Your task to perform on an android device: What's the weather? Image 0: 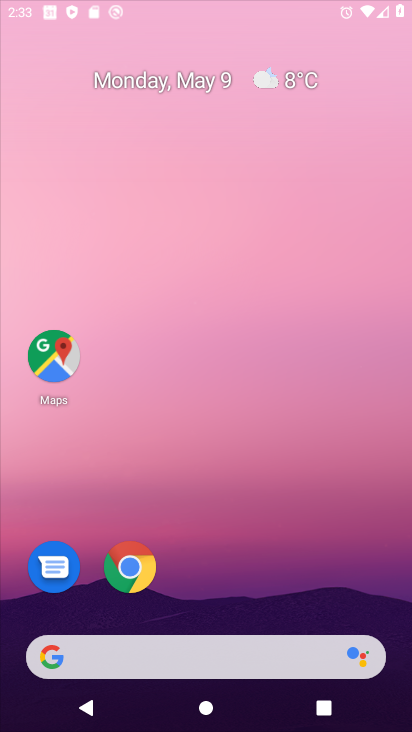
Step 0: click (235, 412)
Your task to perform on an android device: What's the weather? Image 1: 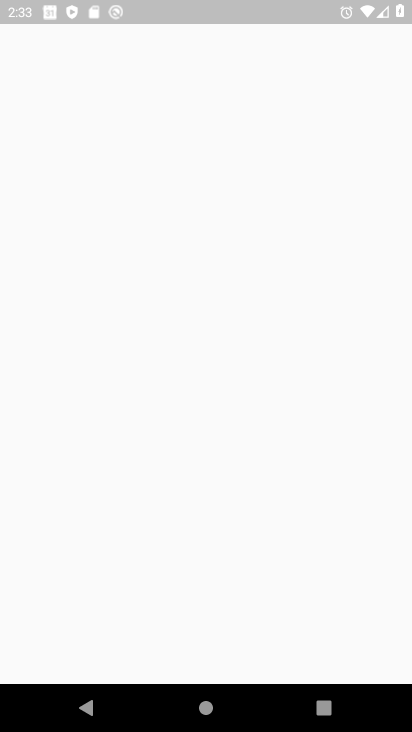
Step 1: drag from (194, 598) to (207, 489)
Your task to perform on an android device: What's the weather? Image 2: 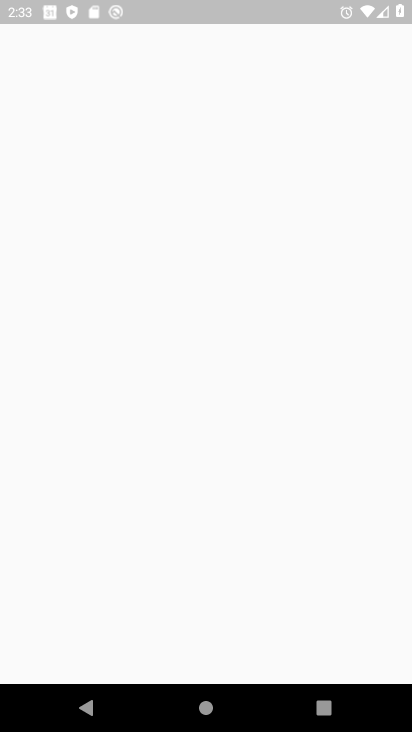
Step 2: drag from (234, 383) to (232, 439)
Your task to perform on an android device: What's the weather? Image 3: 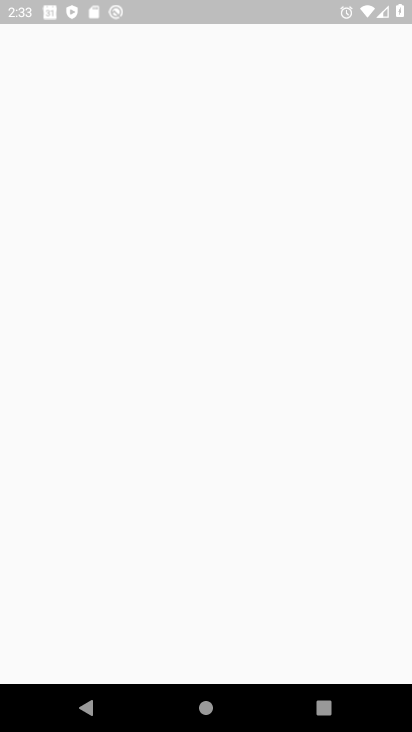
Step 3: press home button
Your task to perform on an android device: What's the weather? Image 4: 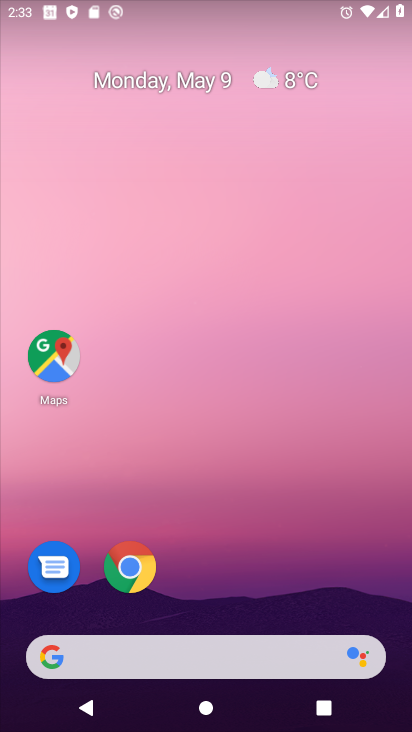
Step 4: drag from (167, 532) to (226, 194)
Your task to perform on an android device: What's the weather? Image 5: 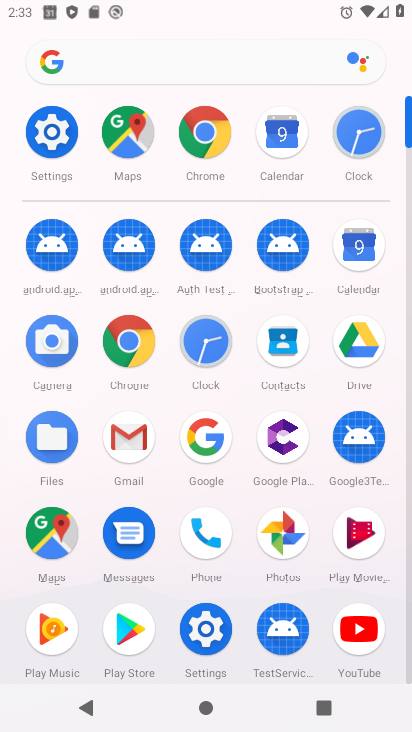
Step 5: click (210, 123)
Your task to perform on an android device: What's the weather? Image 6: 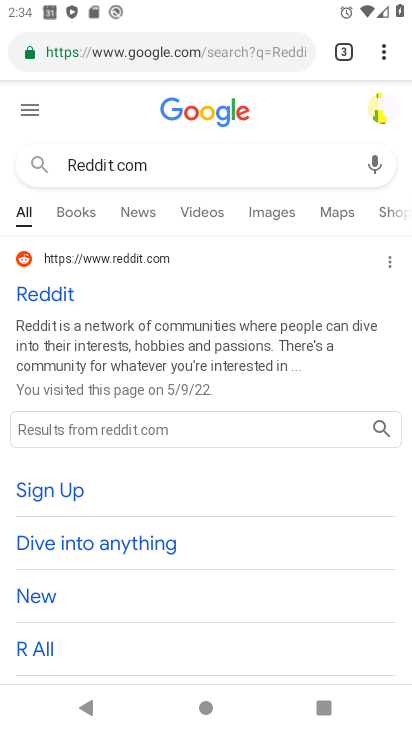
Step 6: click (235, 153)
Your task to perform on an android device: What's the weather? Image 7: 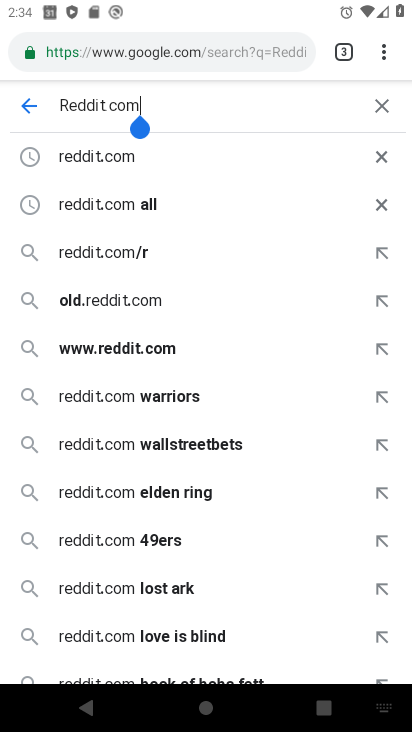
Step 7: click (381, 97)
Your task to perform on an android device: What's the weather? Image 8: 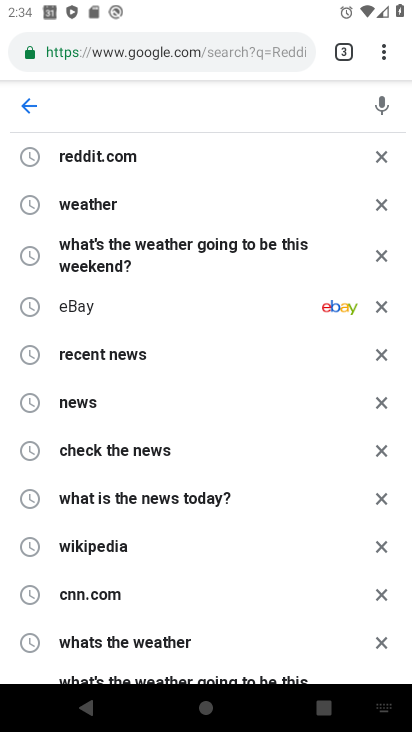
Step 8: click (107, 198)
Your task to perform on an android device: What's the weather? Image 9: 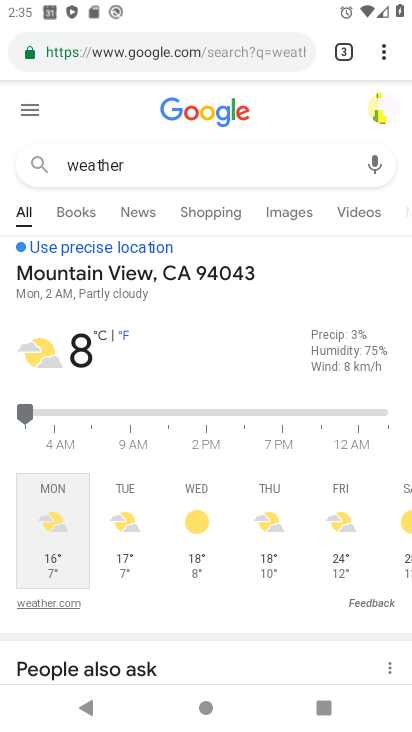
Step 9: task complete